Your task to perform on an android device: toggle sleep mode Image 0: 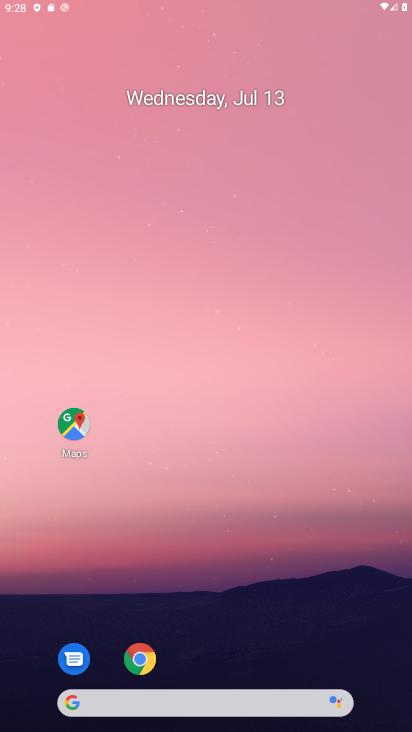
Step 0: click (208, 55)
Your task to perform on an android device: toggle sleep mode Image 1: 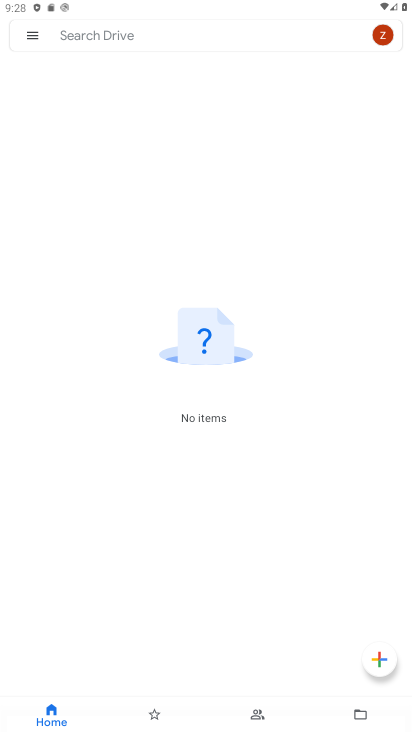
Step 1: press home button
Your task to perform on an android device: toggle sleep mode Image 2: 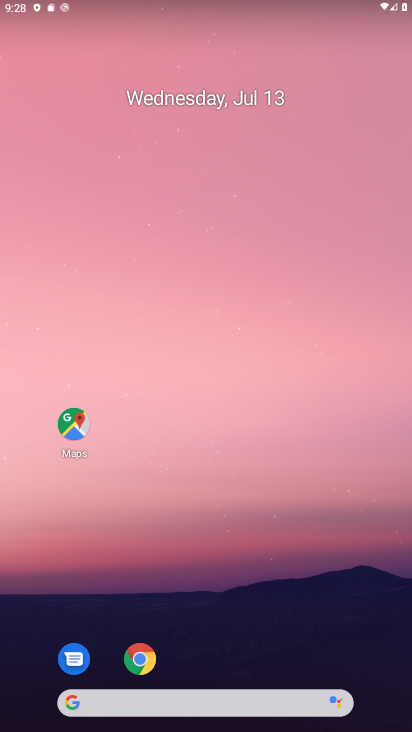
Step 2: drag from (191, 703) to (201, 126)
Your task to perform on an android device: toggle sleep mode Image 3: 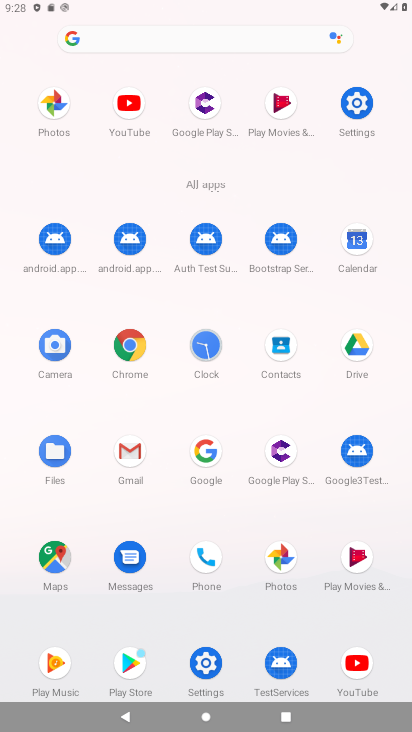
Step 3: click (355, 106)
Your task to perform on an android device: toggle sleep mode Image 4: 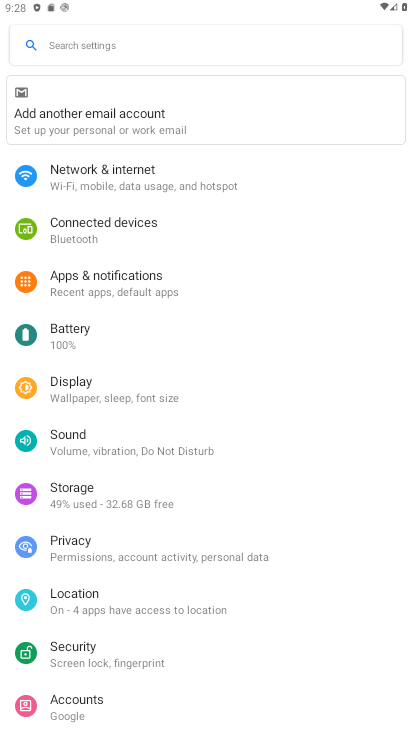
Step 4: click (93, 395)
Your task to perform on an android device: toggle sleep mode Image 5: 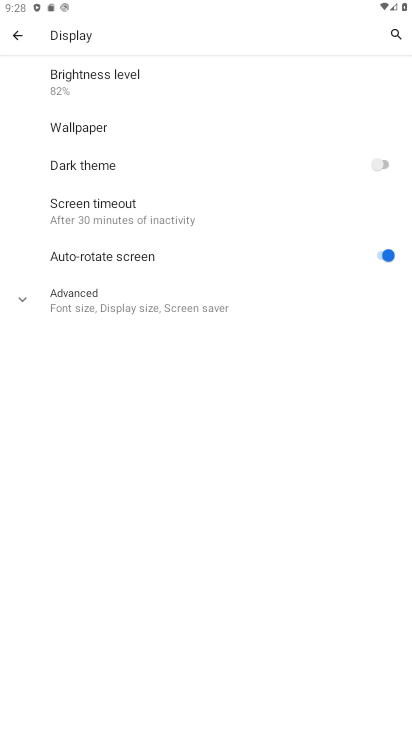
Step 5: click (99, 307)
Your task to perform on an android device: toggle sleep mode Image 6: 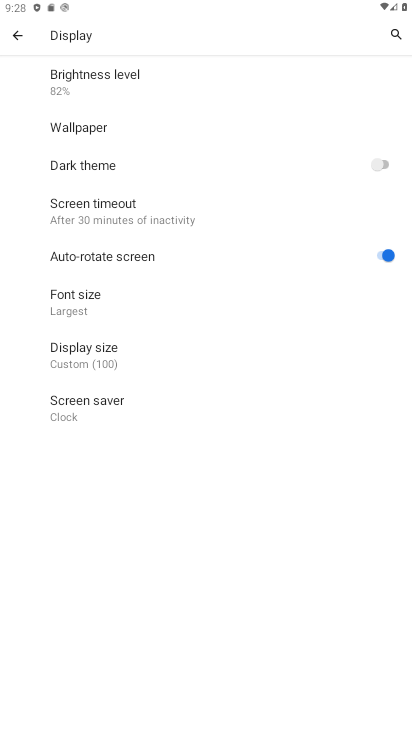
Step 6: task complete